Your task to perform on an android device: What's the weather going to be tomorrow? Image 0: 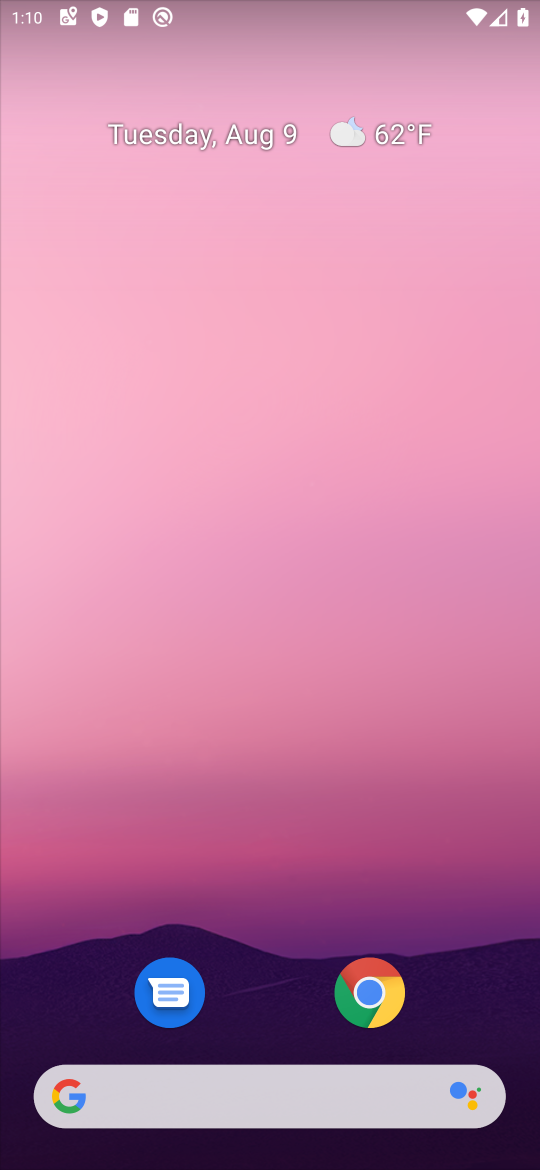
Step 0: drag from (273, 1162) to (177, 15)
Your task to perform on an android device: What's the weather going to be tomorrow? Image 1: 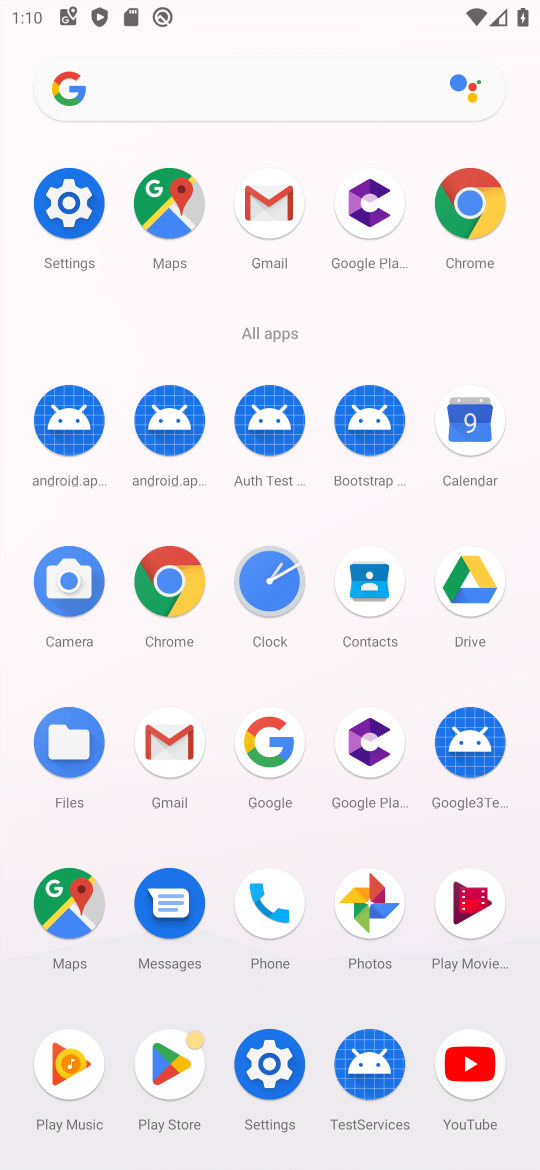
Step 1: click (280, 750)
Your task to perform on an android device: What's the weather going to be tomorrow? Image 2: 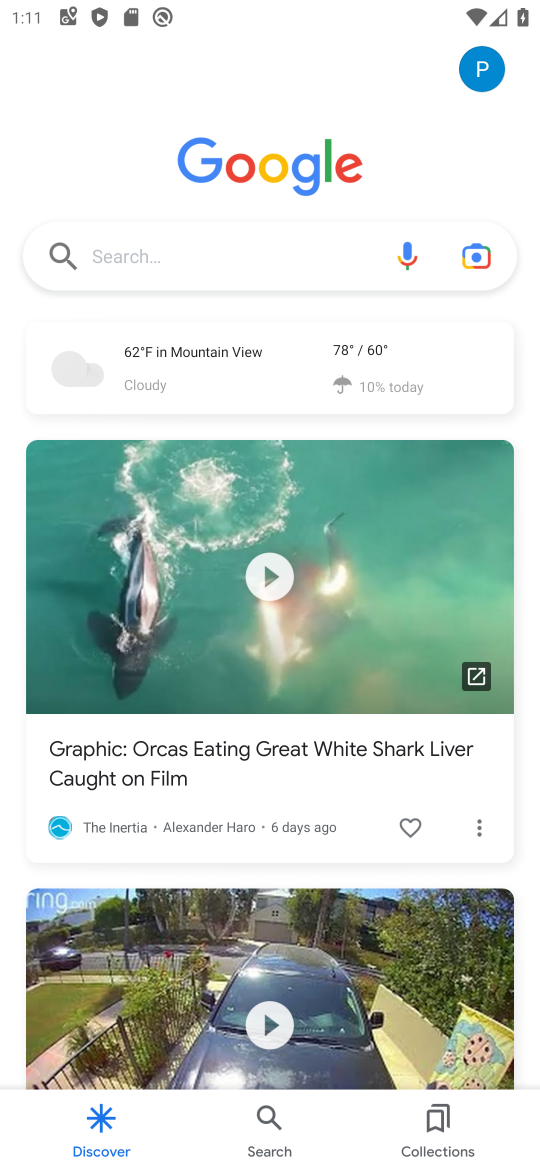
Step 2: click (186, 276)
Your task to perform on an android device: What's the weather going to be tomorrow? Image 3: 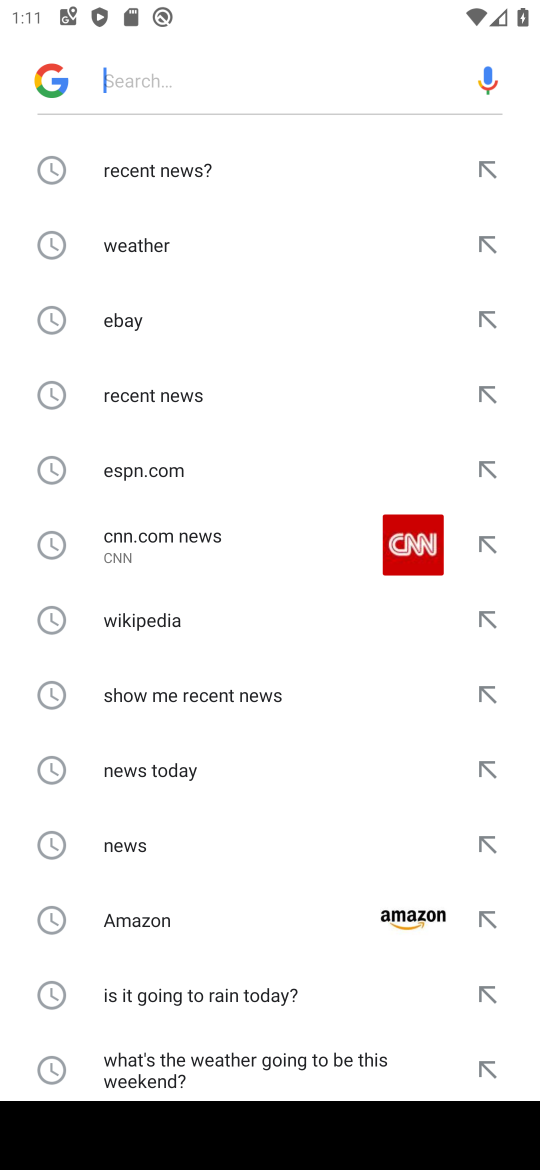
Step 3: click (199, 252)
Your task to perform on an android device: What's the weather going to be tomorrow? Image 4: 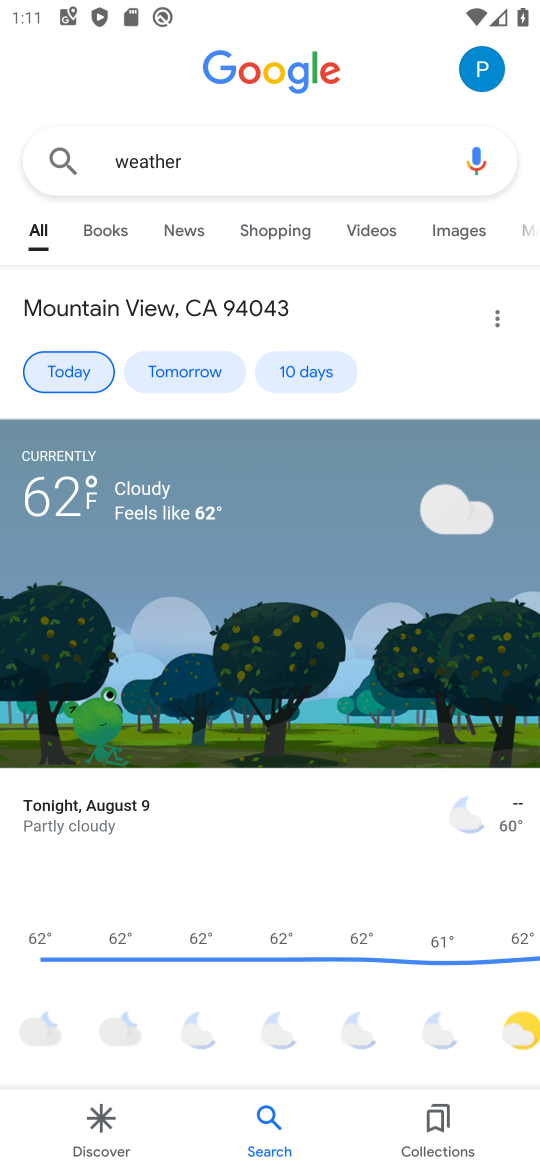
Step 4: click (233, 385)
Your task to perform on an android device: What's the weather going to be tomorrow? Image 5: 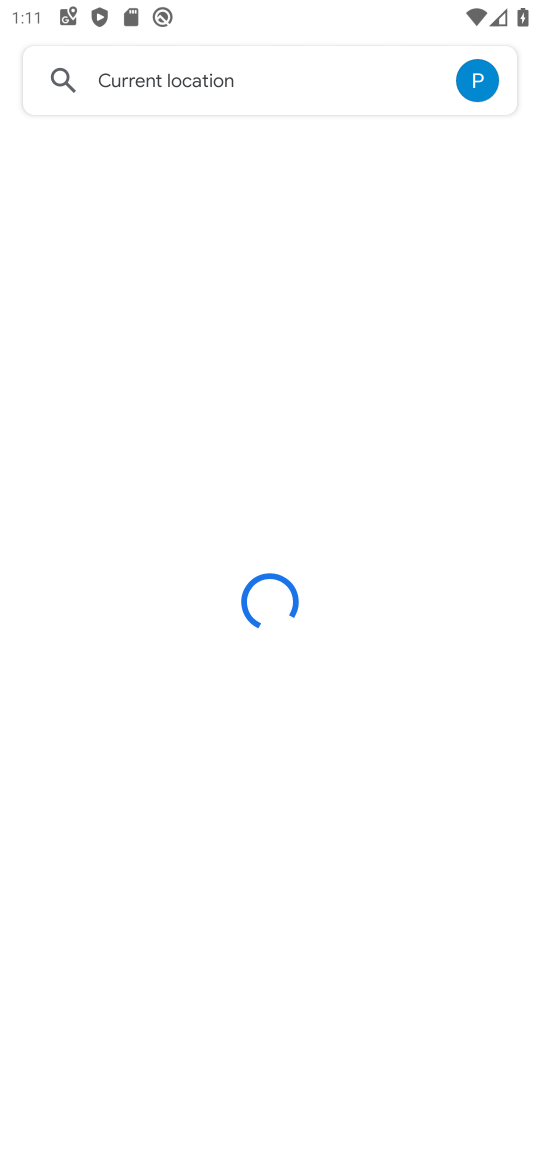
Step 5: task complete